Your task to perform on an android device: turn off location history Image 0: 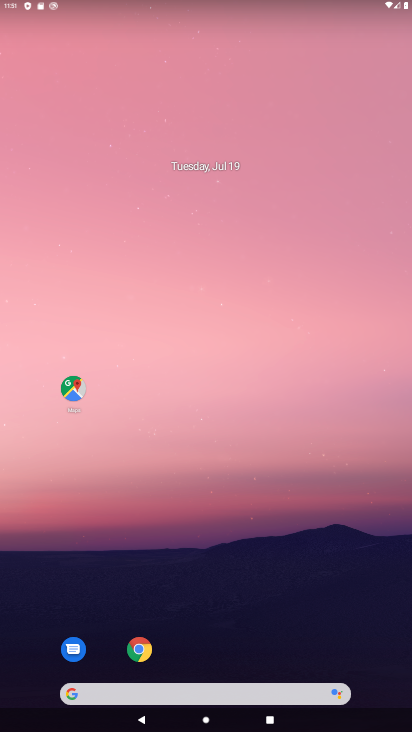
Step 0: press home button
Your task to perform on an android device: turn off location history Image 1: 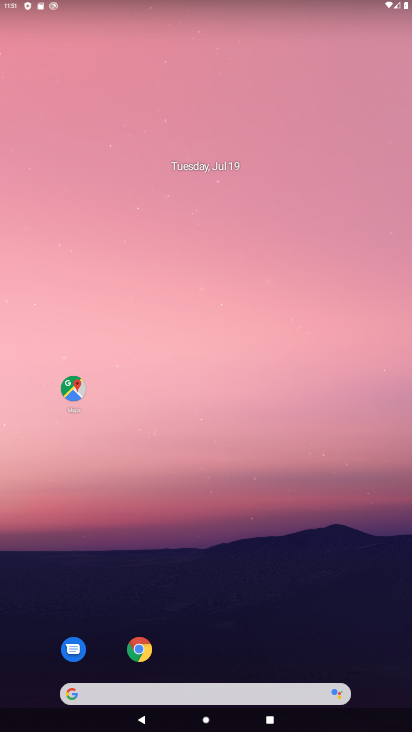
Step 1: drag from (229, 621) to (241, 58)
Your task to perform on an android device: turn off location history Image 2: 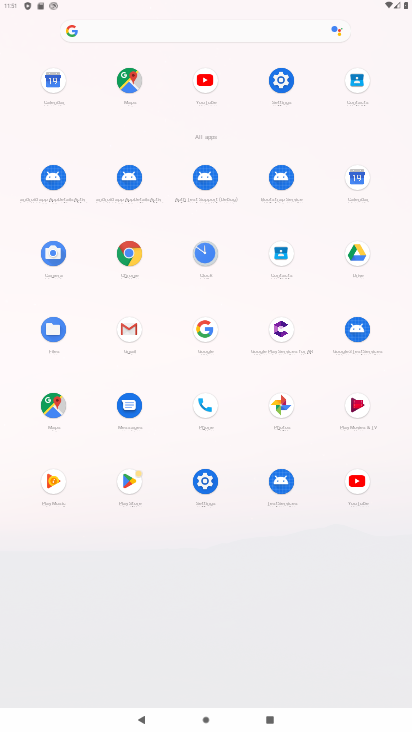
Step 2: click (275, 78)
Your task to perform on an android device: turn off location history Image 3: 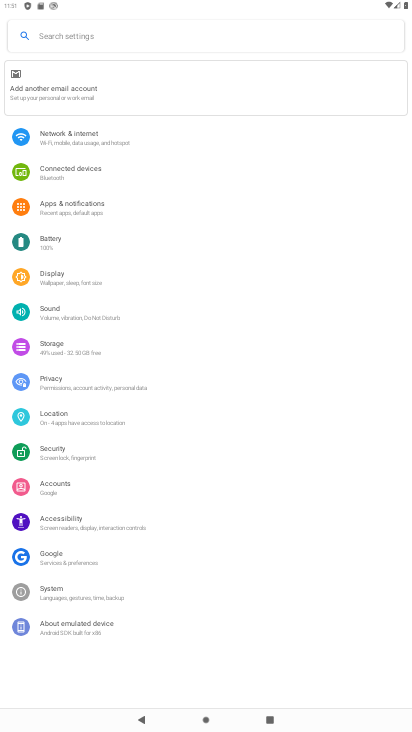
Step 3: click (59, 415)
Your task to perform on an android device: turn off location history Image 4: 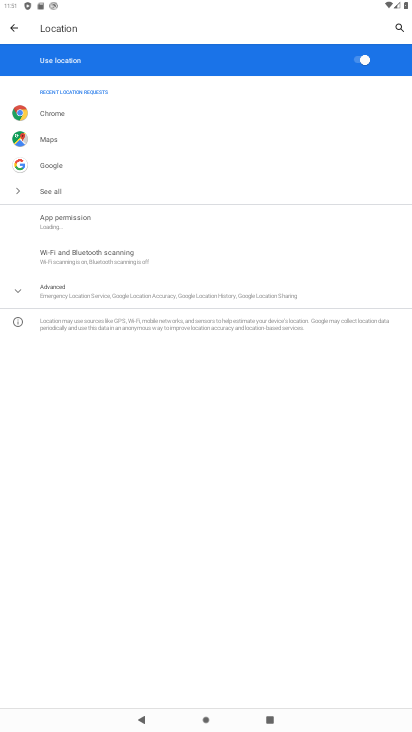
Step 4: click (366, 60)
Your task to perform on an android device: turn off location history Image 5: 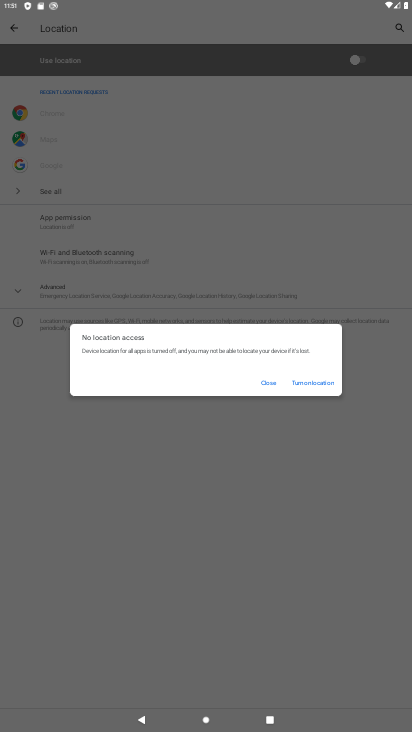
Step 5: click (273, 381)
Your task to perform on an android device: turn off location history Image 6: 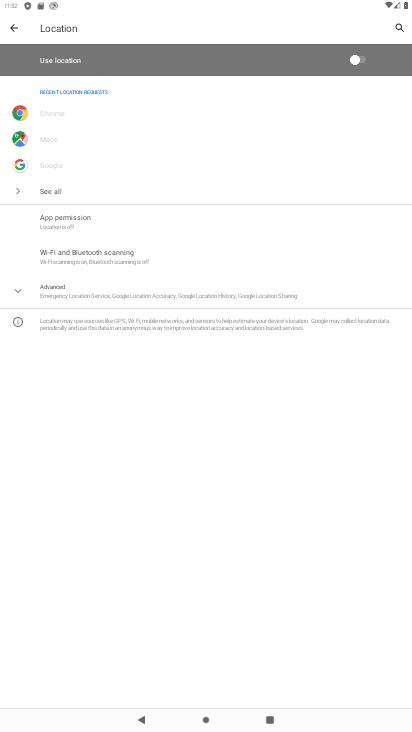
Step 6: task complete